Your task to perform on an android device: Open the calendar and show me this week's events Image 0: 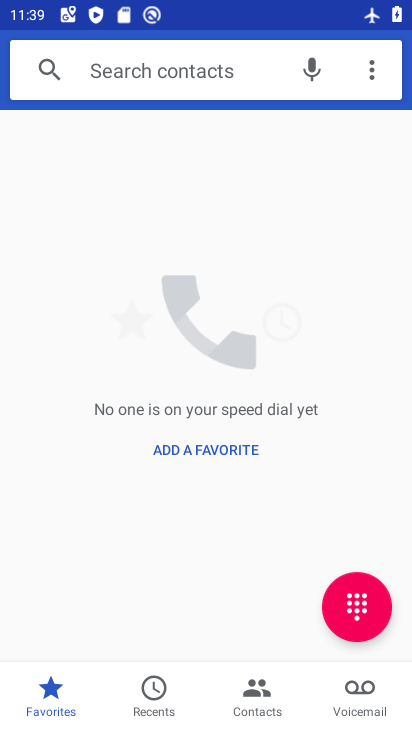
Step 0: drag from (316, 16) to (346, 479)
Your task to perform on an android device: Open the calendar and show me this week's events Image 1: 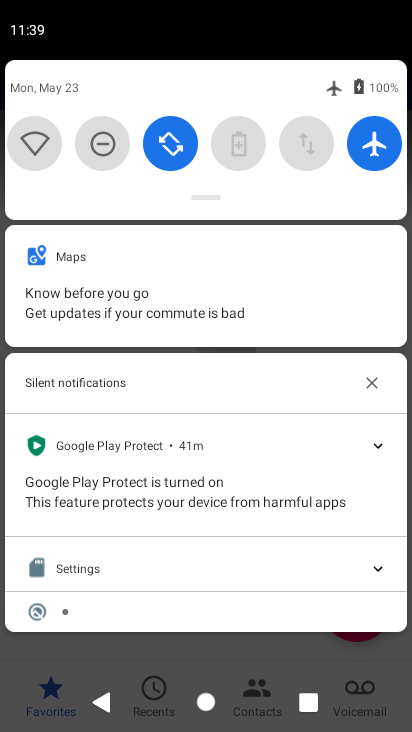
Step 1: click (377, 142)
Your task to perform on an android device: Open the calendar and show me this week's events Image 2: 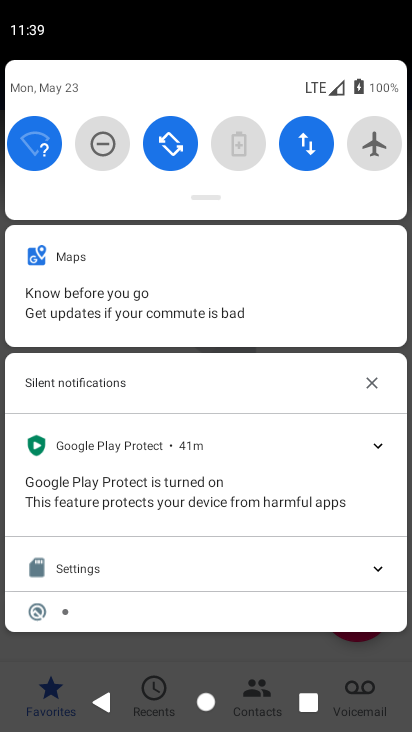
Step 2: press home button
Your task to perform on an android device: Open the calendar and show me this week's events Image 3: 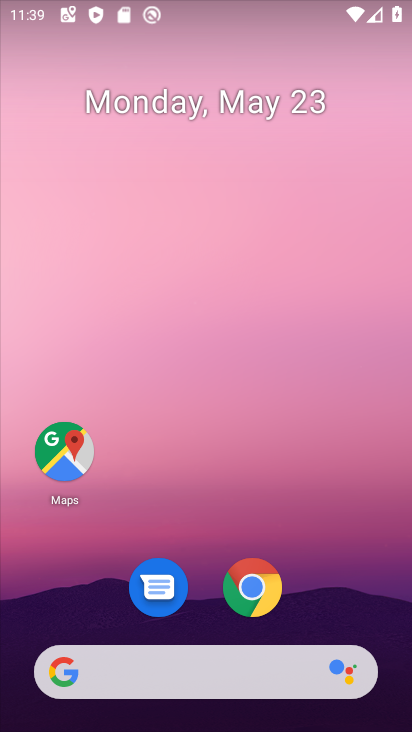
Step 3: drag from (390, 637) to (276, 199)
Your task to perform on an android device: Open the calendar and show me this week's events Image 4: 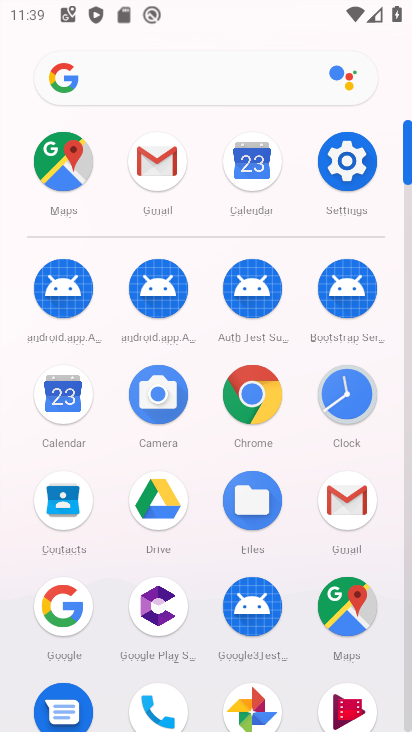
Step 4: click (259, 177)
Your task to perform on an android device: Open the calendar and show me this week's events Image 5: 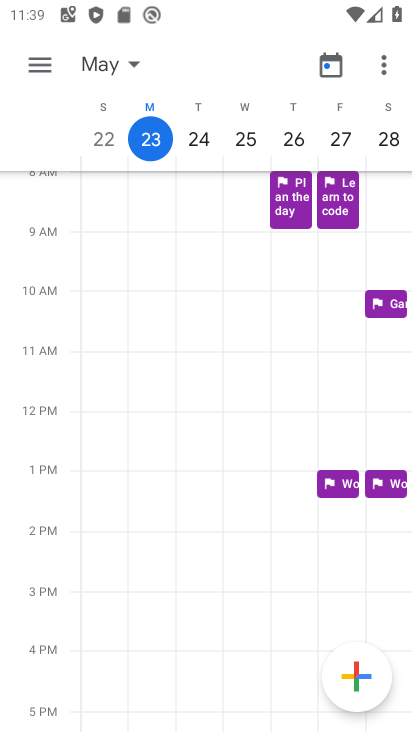
Step 5: task complete